Your task to perform on an android device: Open Youtube and go to the subscriptions tab Image 0: 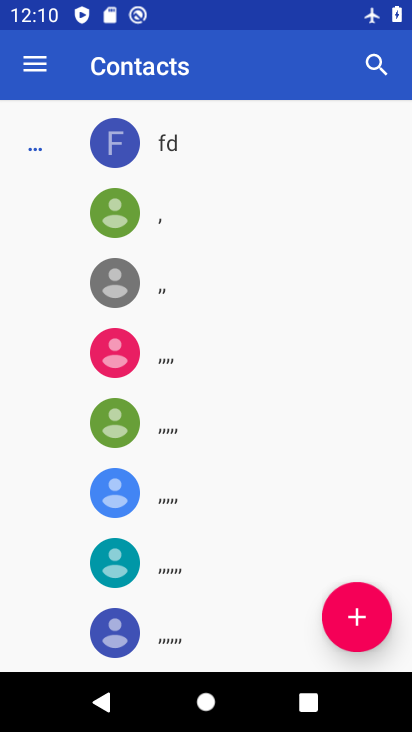
Step 0: press home button
Your task to perform on an android device: Open Youtube and go to the subscriptions tab Image 1: 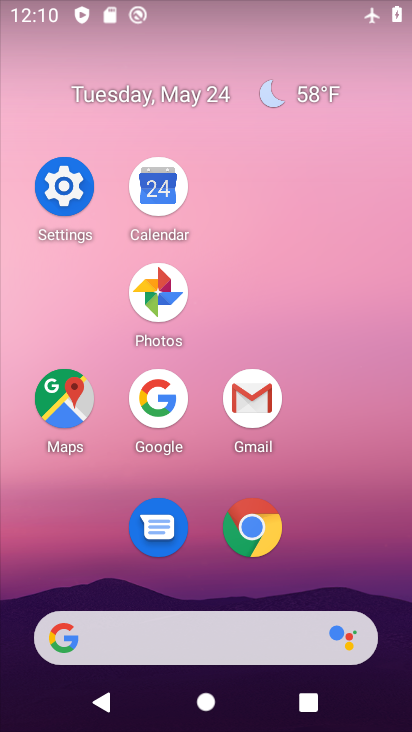
Step 1: drag from (336, 510) to (323, 100)
Your task to perform on an android device: Open Youtube and go to the subscriptions tab Image 2: 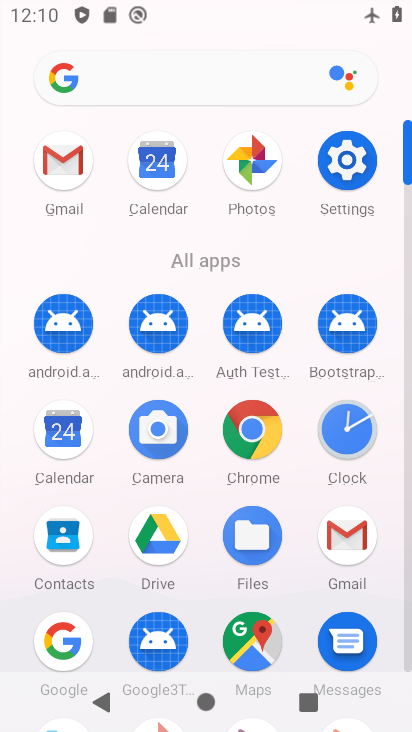
Step 2: drag from (230, 533) to (246, 161)
Your task to perform on an android device: Open Youtube and go to the subscriptions tab Image 3: 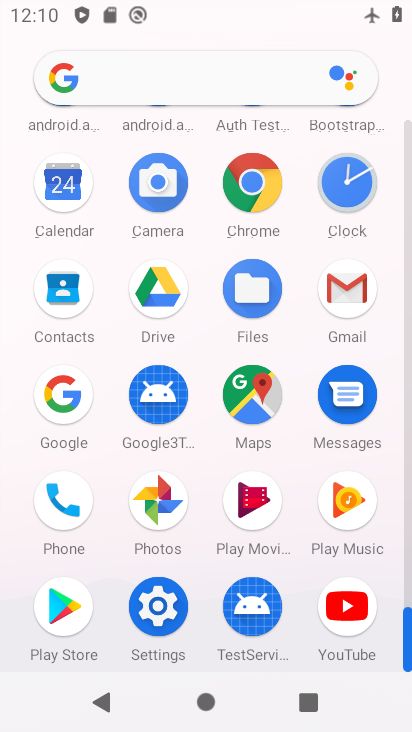
Step 3: drag from (343, 602) to (273, 240)
Your task to perform on an android device: Open Youtube and go to the subscriptions tab Image 4: 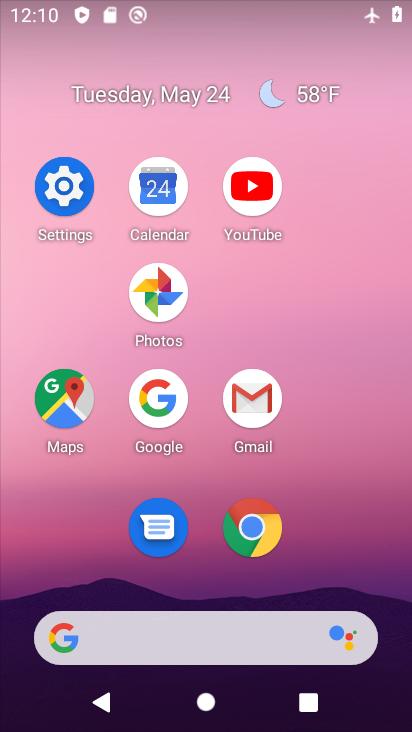
Step 4: click (273, 207)
Your task to perform on an android device: Open Youtube and go to the subscriptions tab Image 5: 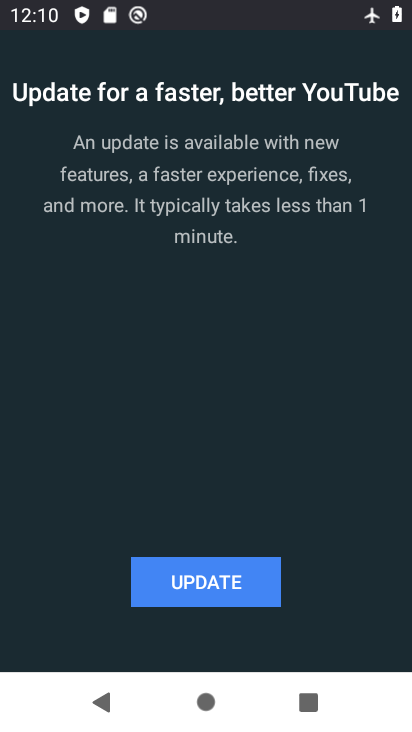
Step 5: click (268, 595)
Your task to perform on an android device: Open Youtube and go to the subscriptions tab Image 6: 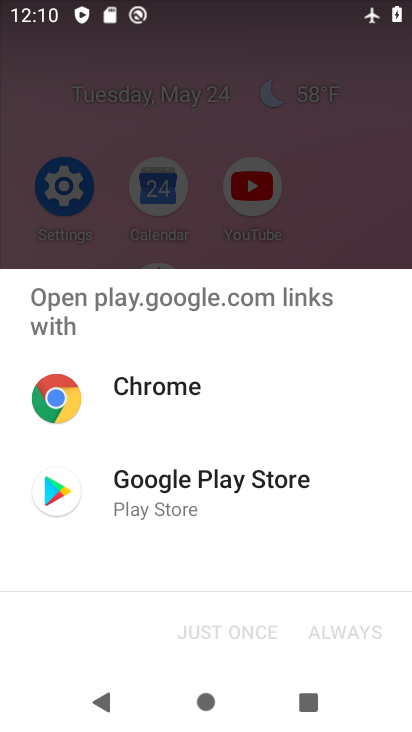
Step 6: click (228, 505)
Your task to perform on an android device: Open Youtube and go to the subscriptions tab Image 7: 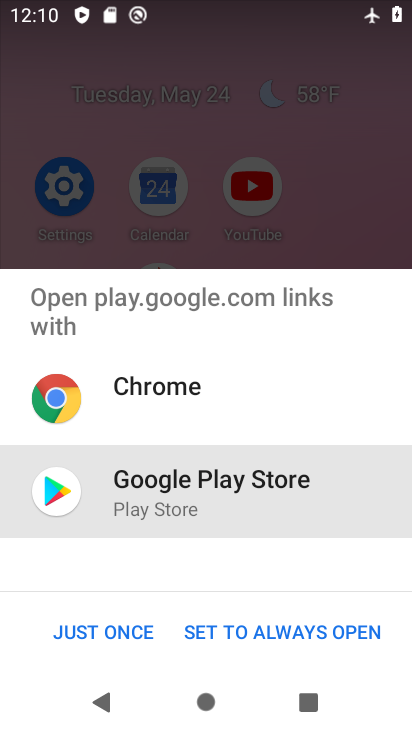
Step 7: click (228, 505)
Your task to perform on an android device: Open Youtube and go to the subscriptions tab Image 8: 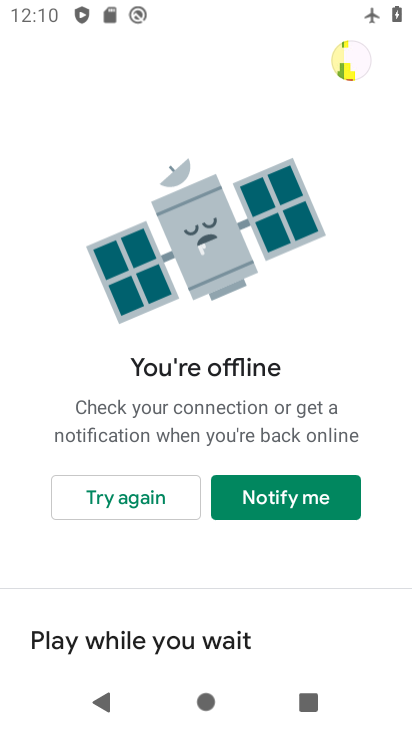
Step 8: click (187, 502)
Your task to perform on an android device: Open Youtube and go to the subscriptions tab Image 9: 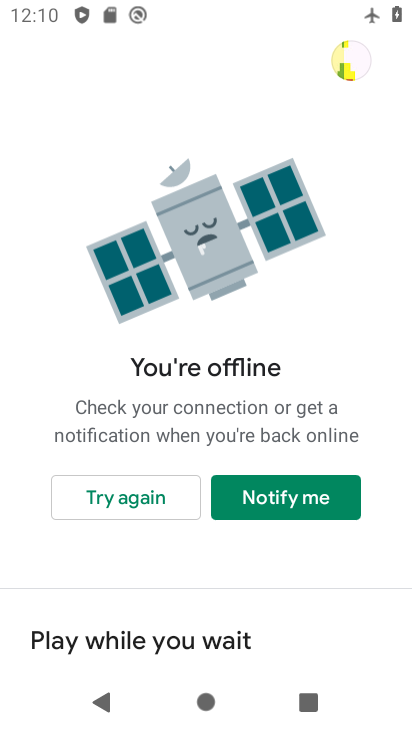
Step 9: click (190, 502)
Your task to perform on an android device: Open Youtube and go to the subscriptions tab Image 10: 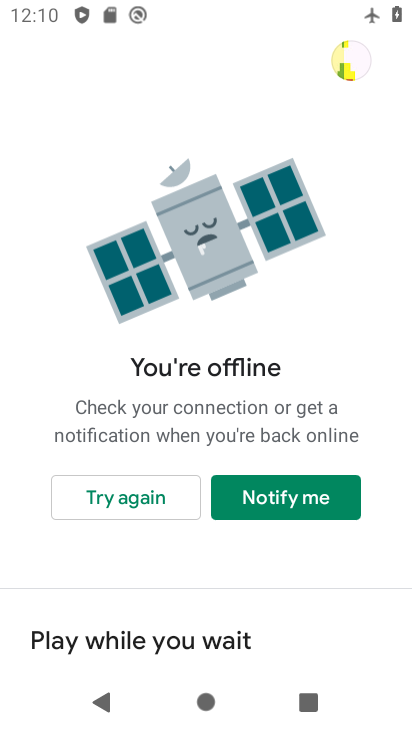
Step 10: task complete